Your task to perform on an android device: toggle translation in the chrome app Image 0: 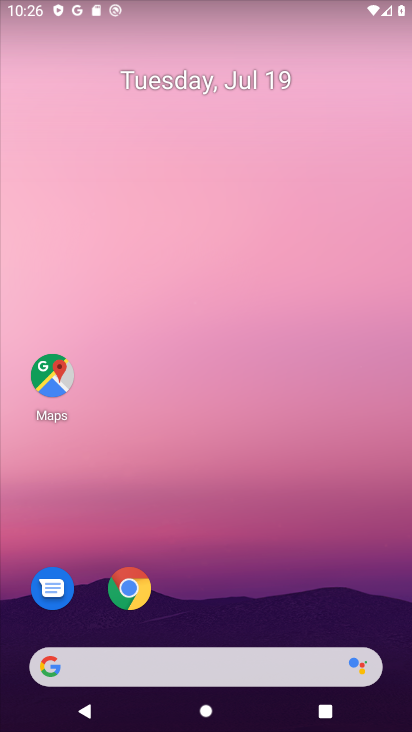
Step 0: click (133, 590)
Your task to perform on an android device: toggle translation in the chrome app Image 1: 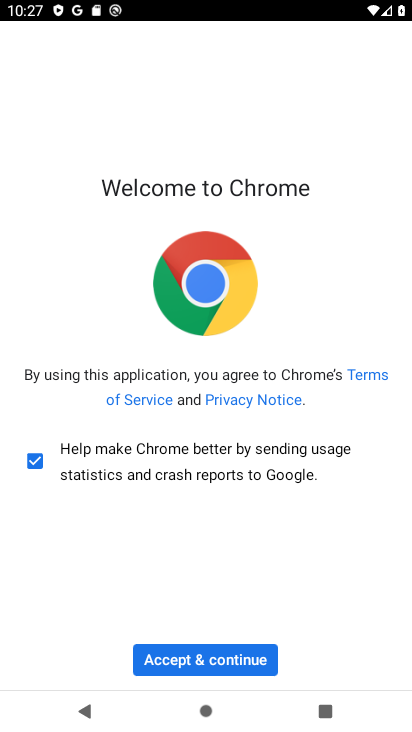
Step 1: click (197, 656)
Your task to perform on an android device: toggle translation in the chrome app Image 2: 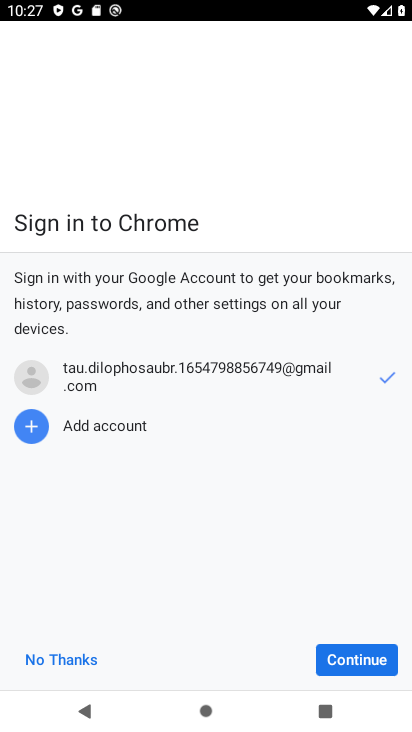
Step 2: click (358, 659)
Your task to perform on an android device: toggle translation in the chrome app Image 3: 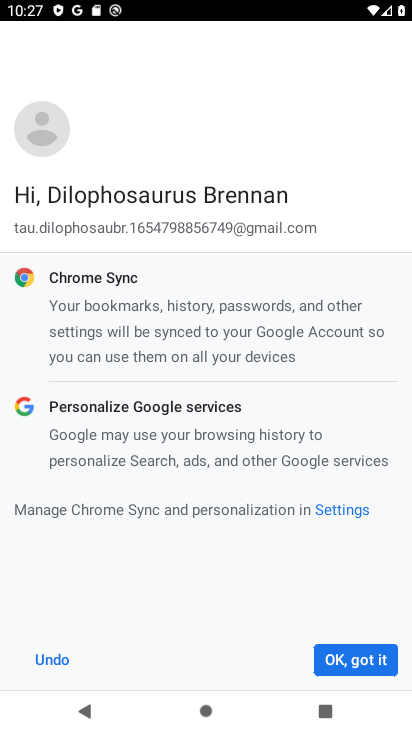
Step 3: click (361, 658)
Your task to perform on an android device: toggle translation in the chrome app Image 4: 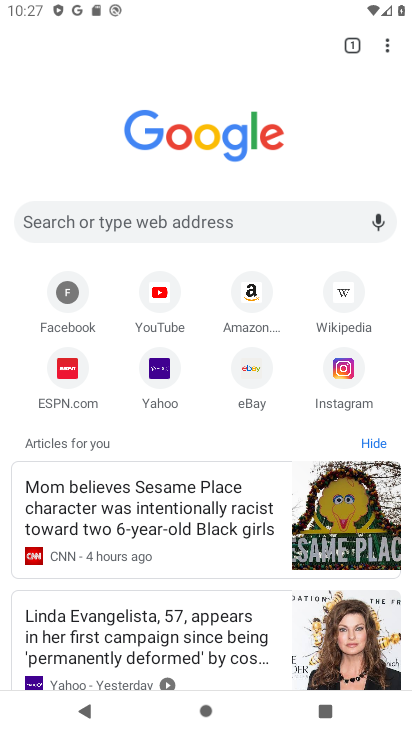
Step 4: click (386, 49)
Your task to perform on an android device: toggle translation in the chrome app Image 5: 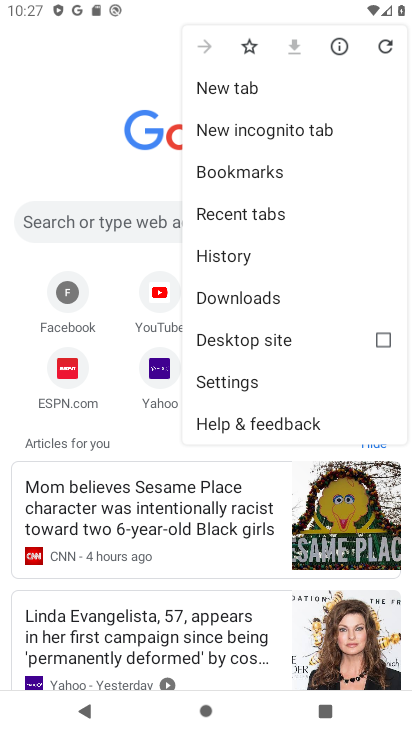
Step 5: click (231, 381)
Your task to perform on an android device: toggle translation in the chrome app Image 6: 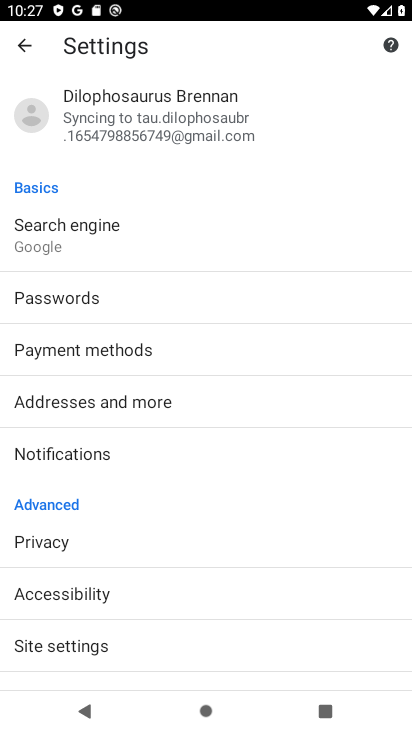
Step 6: drag from (212, 643) to (207, 324)
Your task to perform on an android device: toggle translation in the chrome app Image 7: 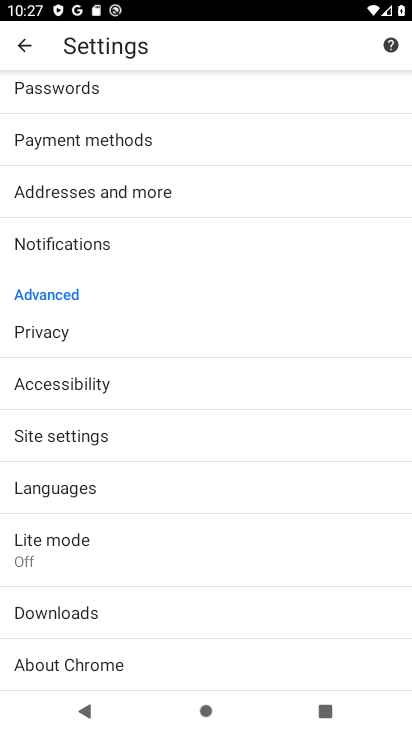
Step 7: click (50, 489)
Your task to perform on an android device: toggle translation in the chrome app Image 8: 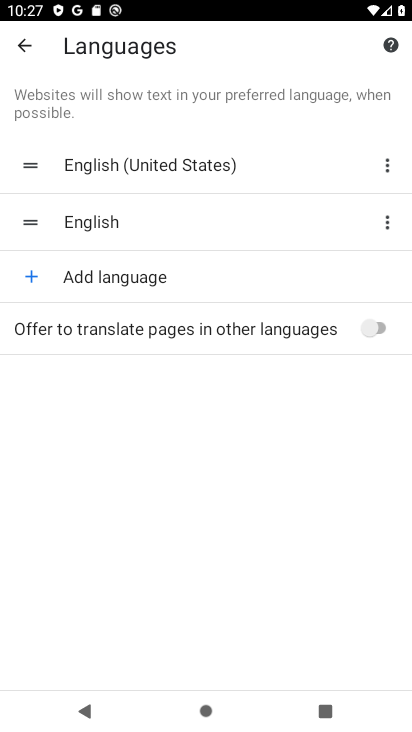
Step 8: click (381, 324)
Your task to perform on an android device: toggle translation in the chrome app Image 9: 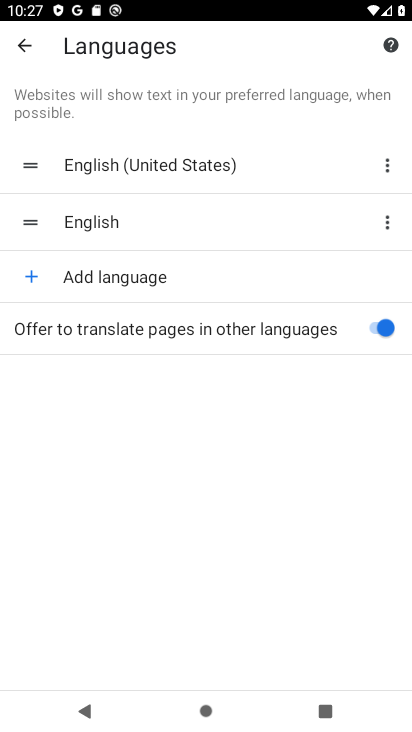
Step 9: task complete